Your task to perform on an android device: Go to eBay Image 0: 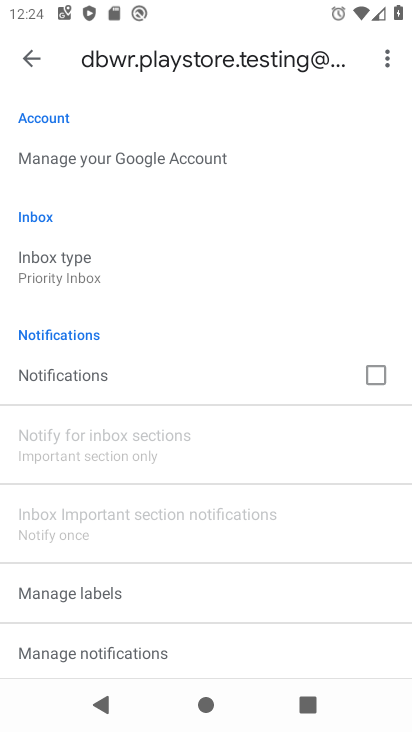
Step 0: press home button
Your task to perform on an android device: Go to eBay Image 1: 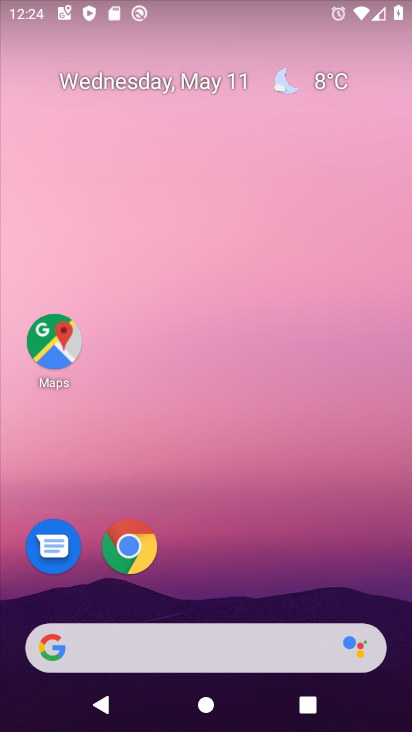
Step 1: drag from (221, 643) to (350, 205)
Your task to perform on an android device: Go to eBay Image 2: 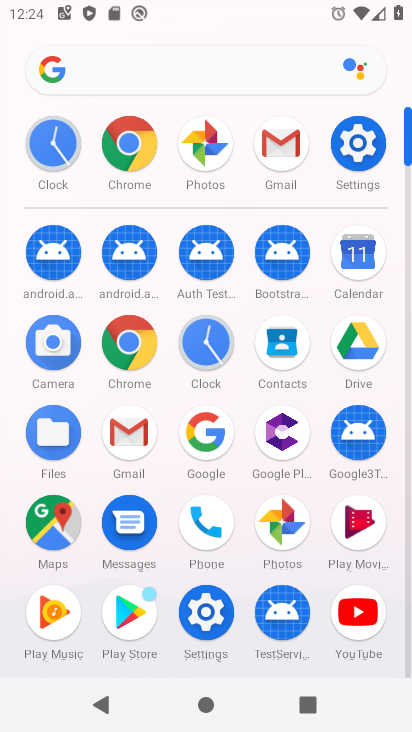
Step 2: click (129, 142)
Your task to perform on an android device: Go to eBay Image 3: 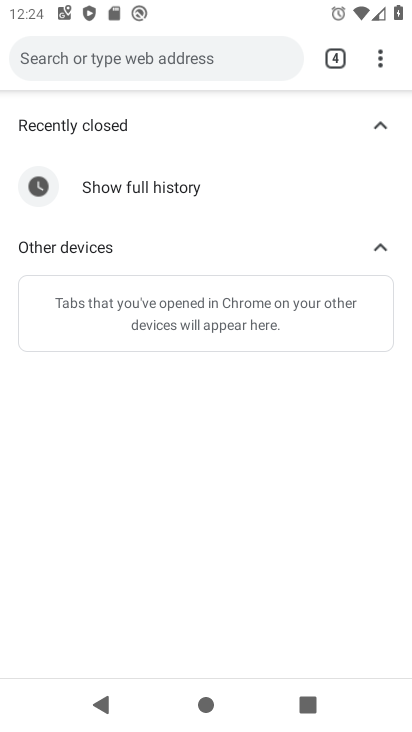
Step 3: drag from (381, 63) to (294, 138)
Your task to perform on an android device: Go to eBay Image 4: 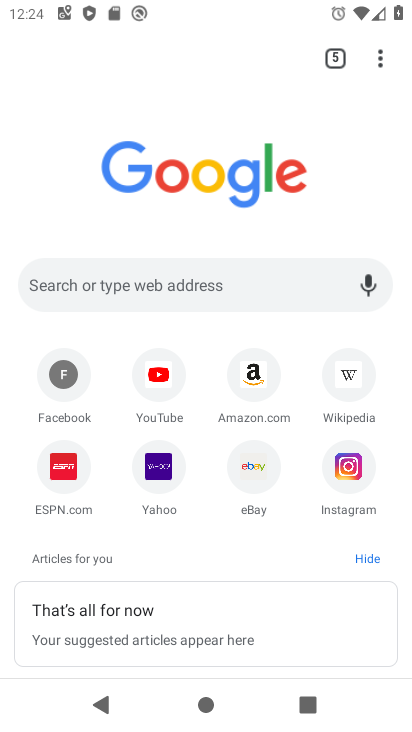
Step 4: click (253, 465)
Your task to perform on an android device: Go to eBay Image 5: 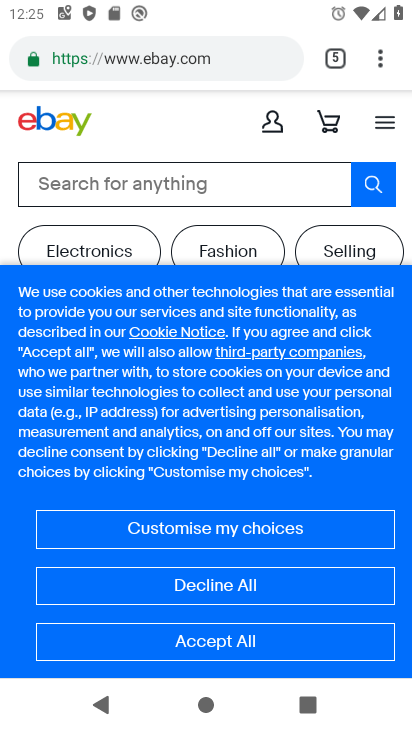
Step 5: task complete